Your task to perform on an android device: turn pop-ups off in chrome Image 0: 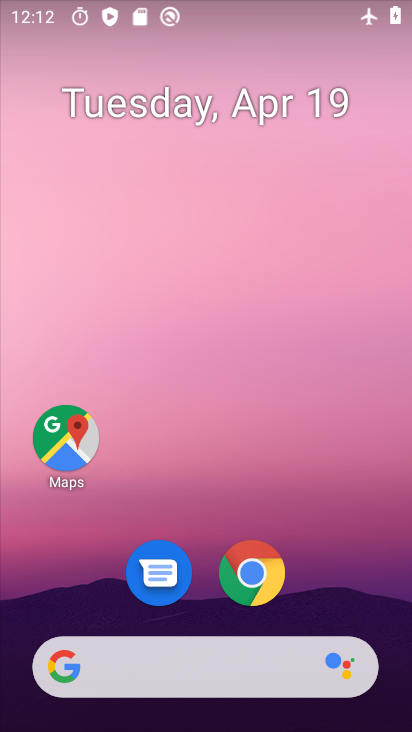
Step 0: click (267, 579)
Your task to perform on an android device: turn pop-ups off in chrome Image 1: 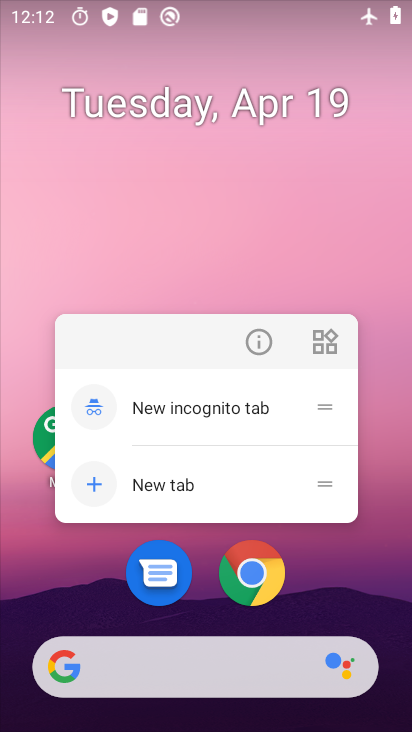
Step 1: click (267, 574)
Your task to perform on an android device: turn pop-ups off in chrome Image 2: 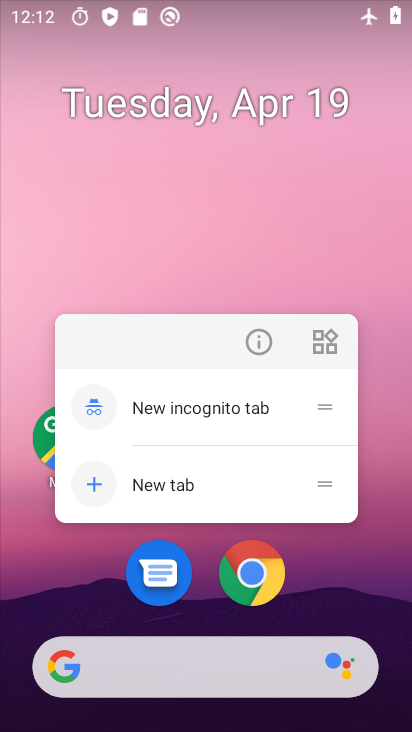
Step 2: click (265, 570)
Your task to perform on an android device: turn pop-ups off in chrome Image 3: 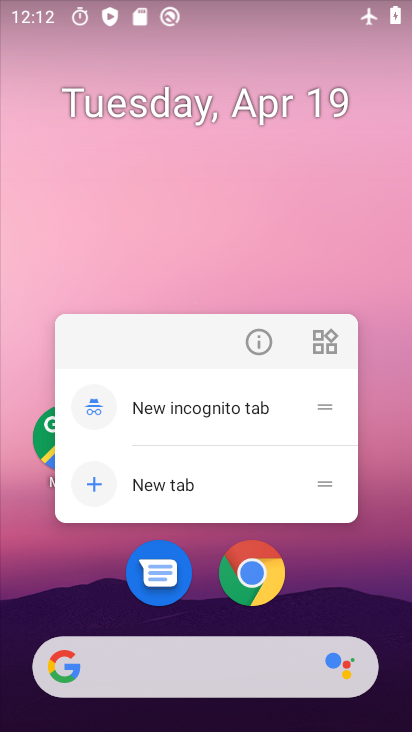
Step 3: click (263, 575)
Your task to perform on an android device: turn pop-ups off in chrome Image 4: 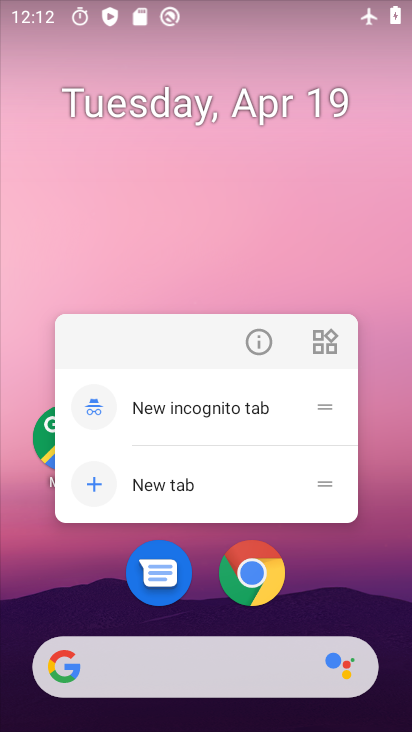
Step 4: click (263, 592)
Your task to perform on an android device: turn pop-ups off in chrome Image 5: 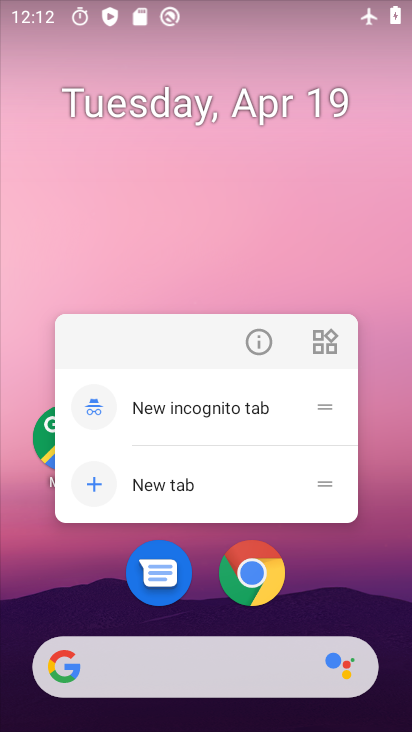
Step 5: click (263, 590)
Your task to perform on an android device: turn pop-ups off in chrome Image 6: 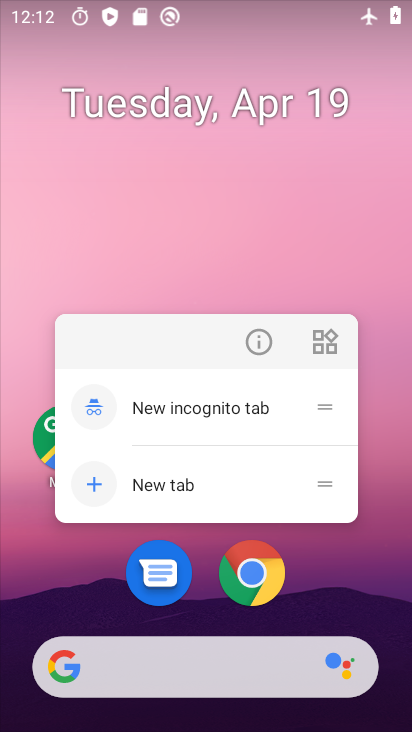
Step 6: click (263, 590)
Your task to perform on an android device: turn pop-ups off in chrome Image 7: 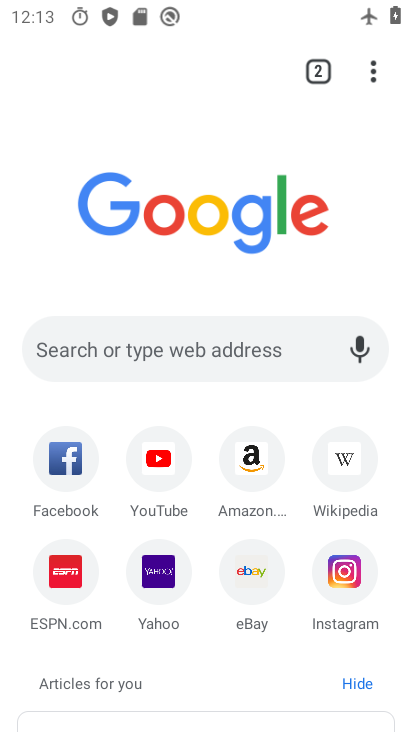
Step 7: drag from (370, 71) to (199, 615)
Your task to perform on an android device: turn pop-ups off in chrome Image 8: 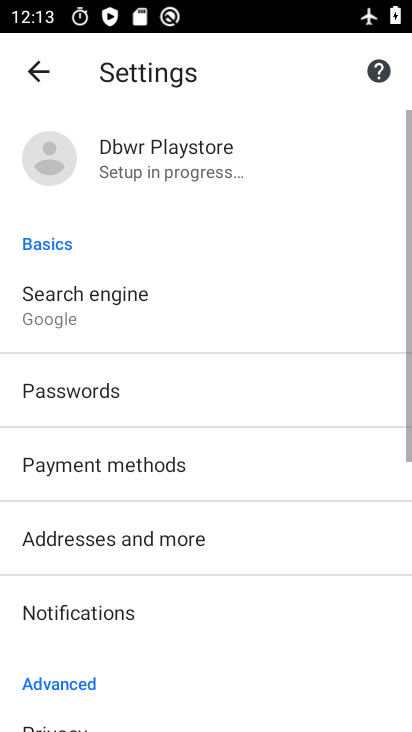
Step 8: drag from (199, 615) to (189, 225)
Your task to perform on an android device: turn pop-ups off in chrome Image 9: 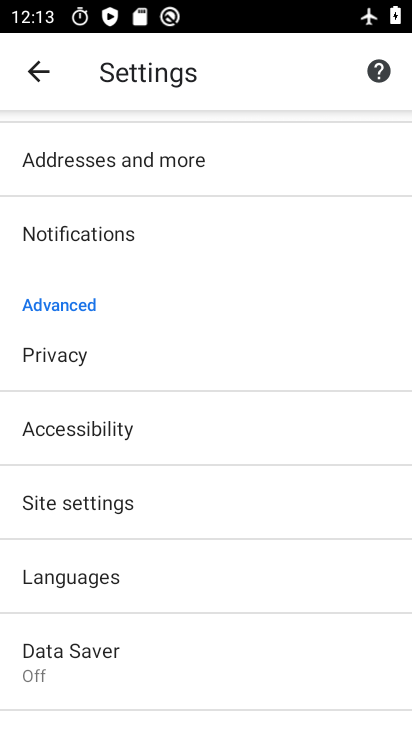
Step 9: click (130, 523)
Your task to perform on an android device: turn pop-ups off in chrome Image 10: 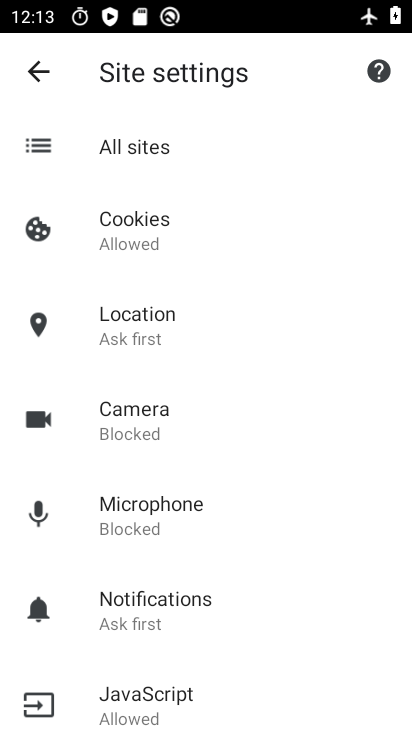
Step 10: drag from (177, 562) to (200, 263)
Your task to perform on an android device: turn pop-ups off in chrome Image 11: 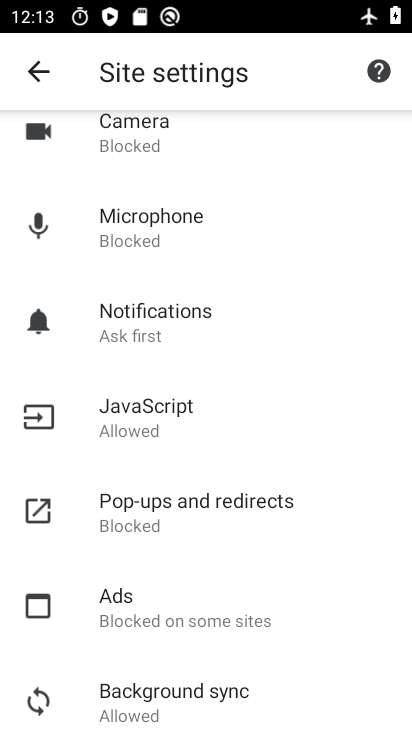
Step 11: click (191, 508)
Your task to perform on an android device: turn pop-ups off in chrome Image 12: 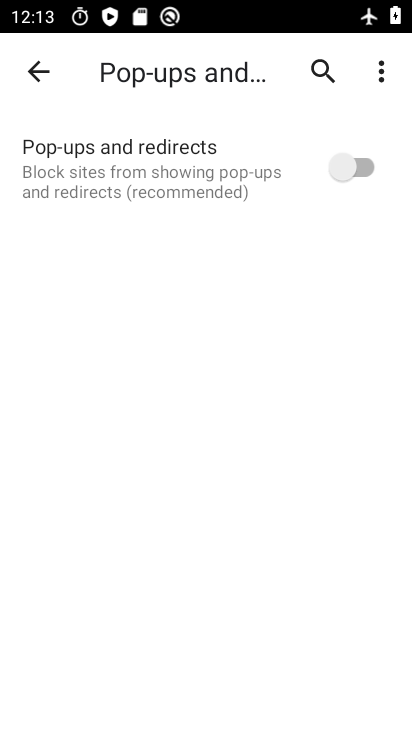
Step 12: task complete